Your task to perform on an android device: open a bookmark in the chrome app Image 0: 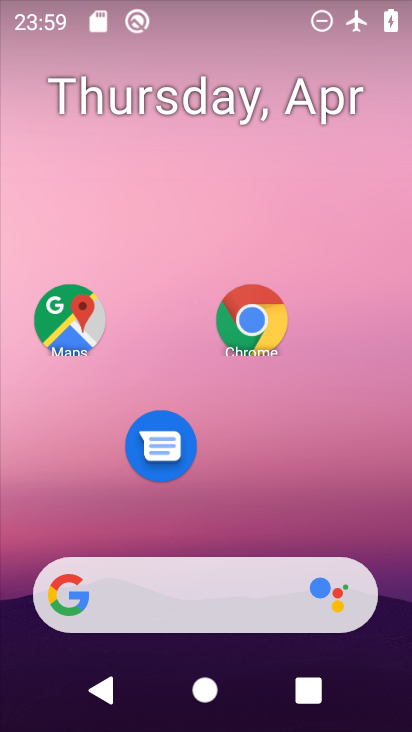
Step 0: drag from (213, 487) to (204, 199)
Your task to perform on an android device: open a bookmark in the chrome app Image 1: 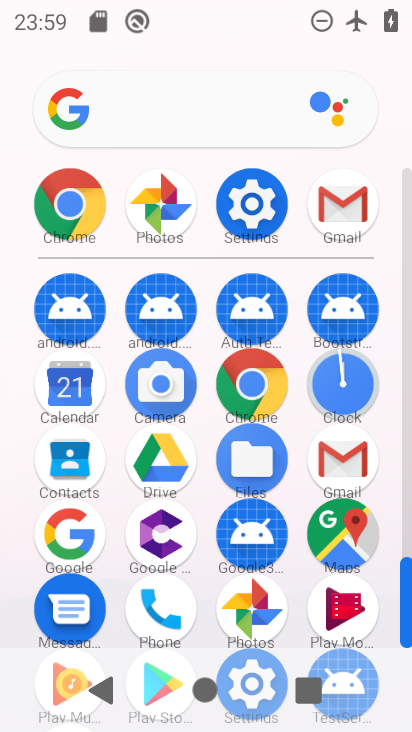
Step 1: click (254, 381)
Your task to perform on an android device: open a bookmark in the chrome app Image 2: 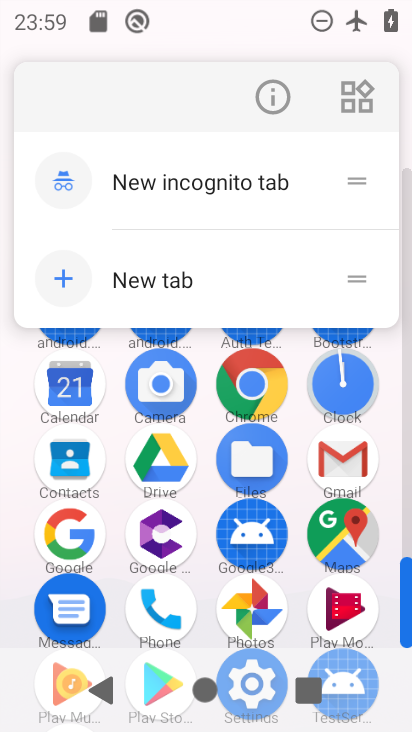
Step 2: click (275, 103)
Your task to perform on an android device: open a bookmark in the chrome app Image 3: 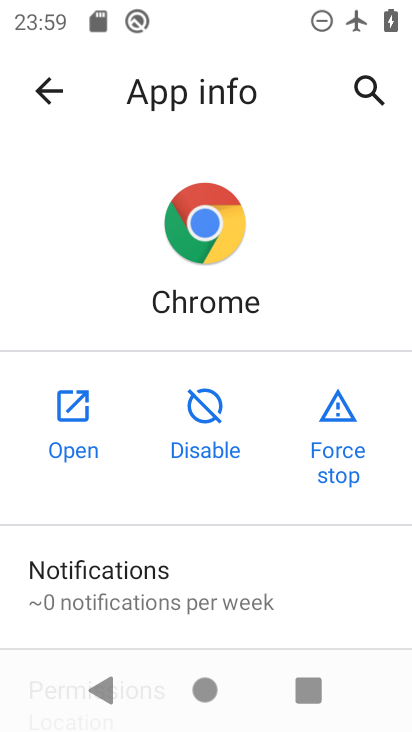
Step 3: click (79, 428)
Your task to perform on an android device: open a bookmark in the chrome app Image 4: 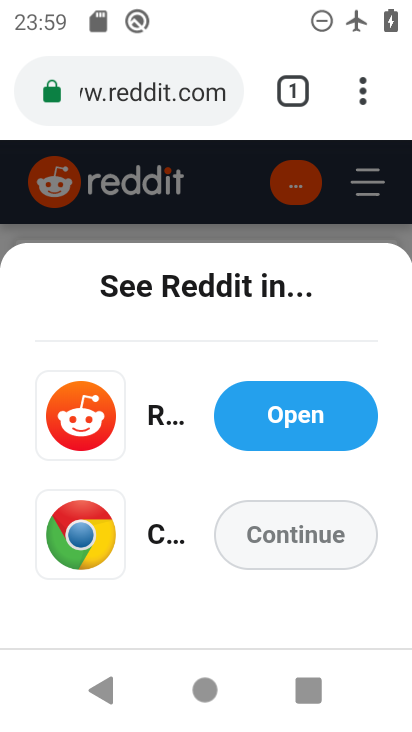
Step 4: drag from (359, 103) to (158, 275)
Your task to perform on an android device: open a bookmark in the chrome app Image 5: 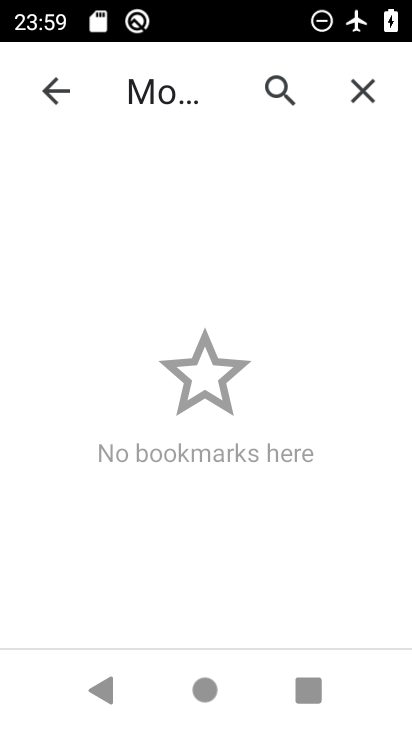
Step 5: drag from (213, 558) to (232, 295)
Your task to perform on an android device: open a bookmark in the chrome app Image 6: 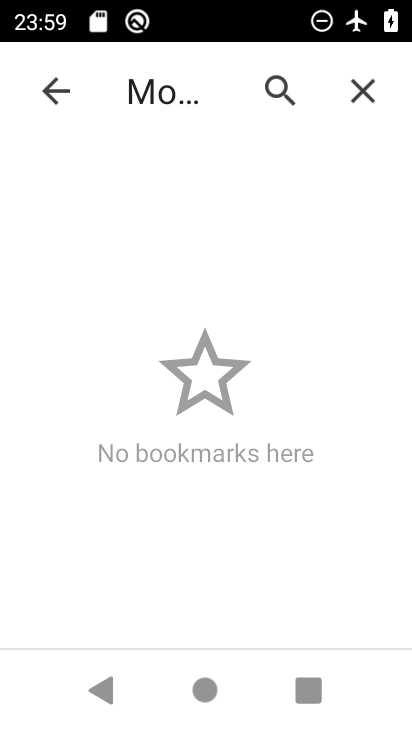
Step 6: drag from (207, 207) to (206, 372)
Your task to perform on an android device: open a bookmark in the chrome app Image 7: 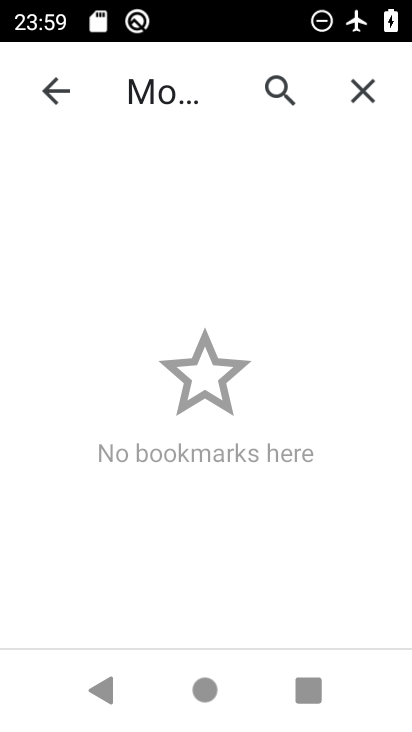
Step 7: drag from (146, 560) to (169, 490)
Your task to perform on an android device: open a bookmark in the chrome app Image 8: 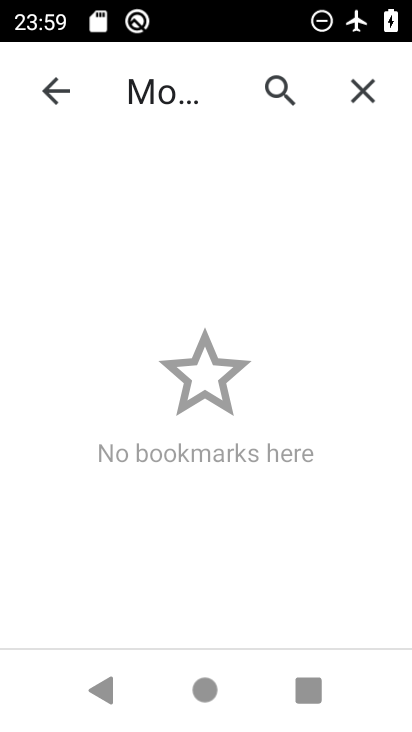
Step 8: drag from (190, 466) to (190, 285)
Your task to perform on an android device: open a bookmark in the chrome app Image 9: 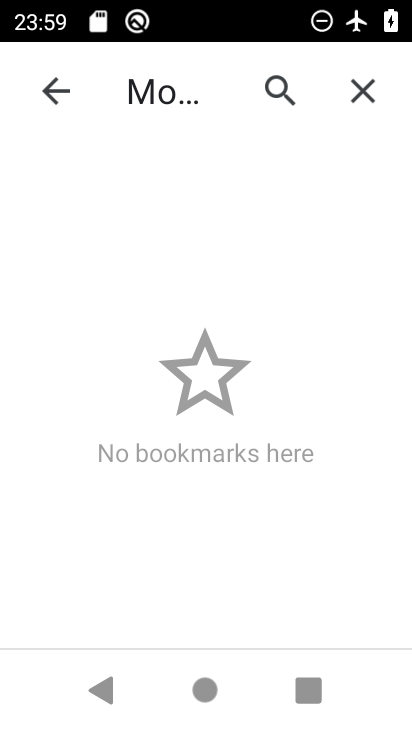
Step 9: click (187, 235)
Your task to perform on an android device: open a bookmark in the chrome app Image 10: 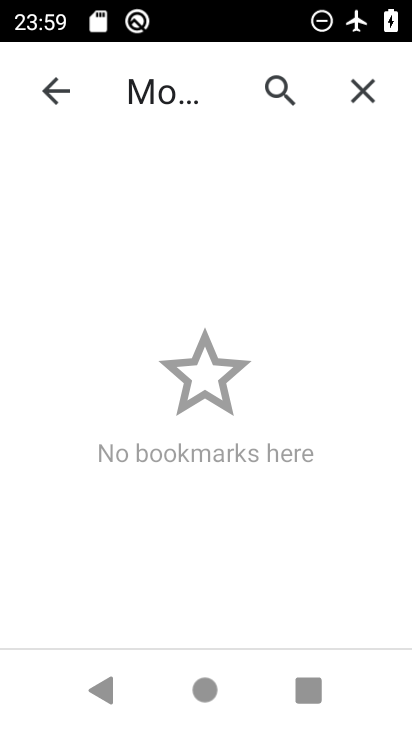
Step 10: click (181, 230)
Your task to perform on an android device: open a bookmark in the chrome app Image 11: 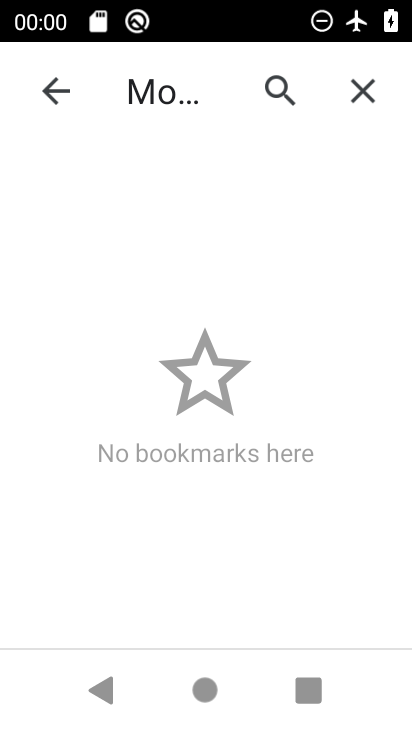
Step 11: click (211, 486)
Your task to perform on an android device: open a bookmark in the chrome app Image 12: 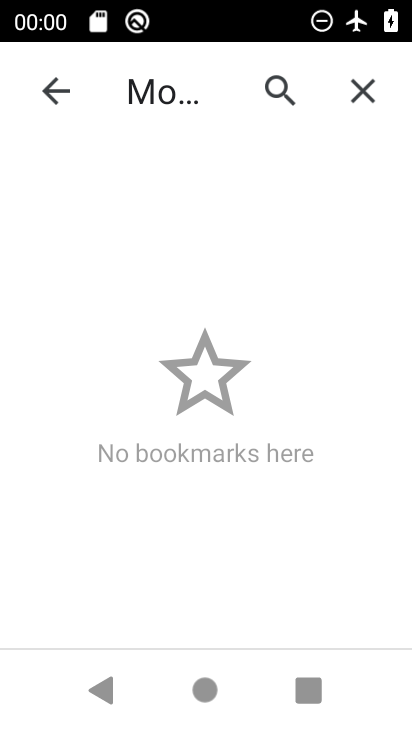
Step 12: click (202, 305)
Your task to perform on an android device: open a bookmark in the chrome app Image 13: 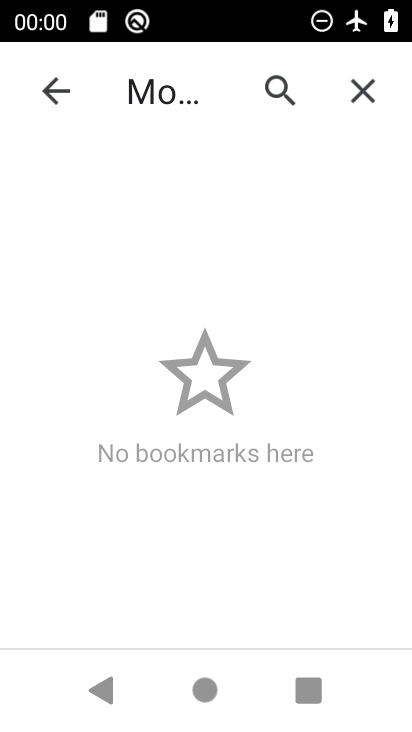
Step 13: click (206, 316)
Your task to perform on an android device: open a bookmark in the chrome app Image 14: 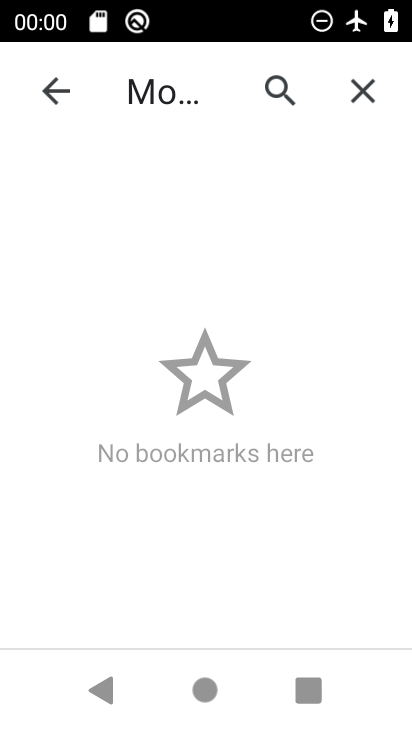
Step 14: click (208, 316)
Your task to perform on an android device: open a bookmark in the chrome app Image 15: 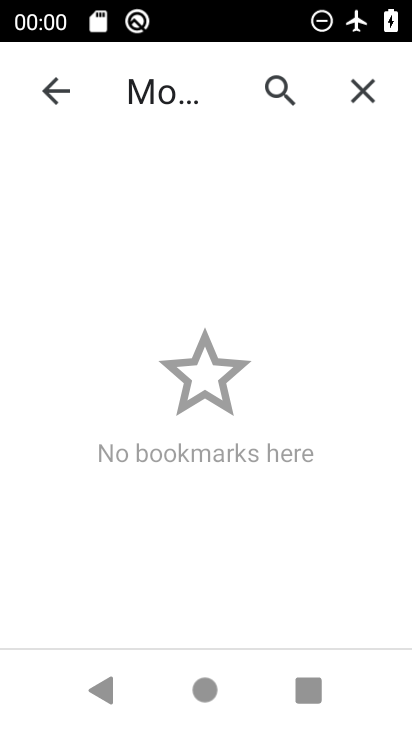
Step 15: click (220, 449)
Your task to perform on an android device: open a bookmark in the chrome app Image 16: 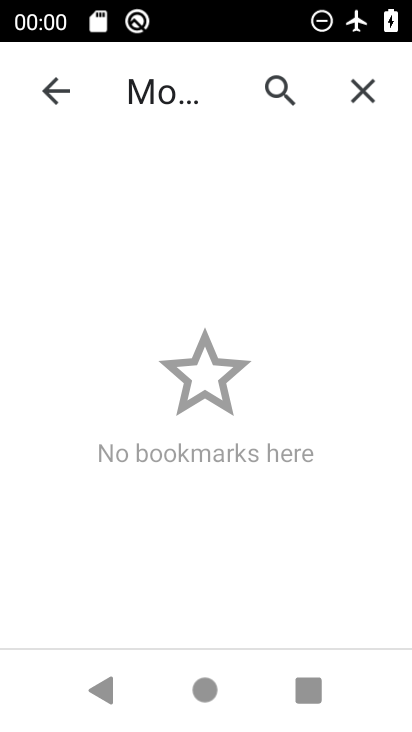
Step 16: click (272, 405)
Your task to perform on an android device: open a bookmark in the chrome app Image 17: 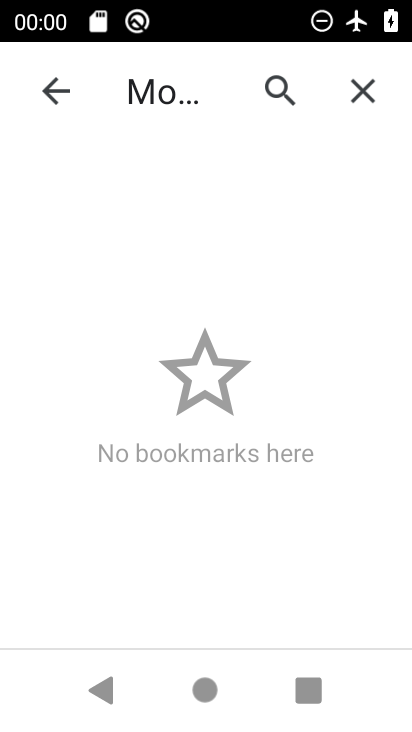
Step 17: click (172, 481)
Your task to perform on an android device: open a bookmark in the chrome app Image 18: 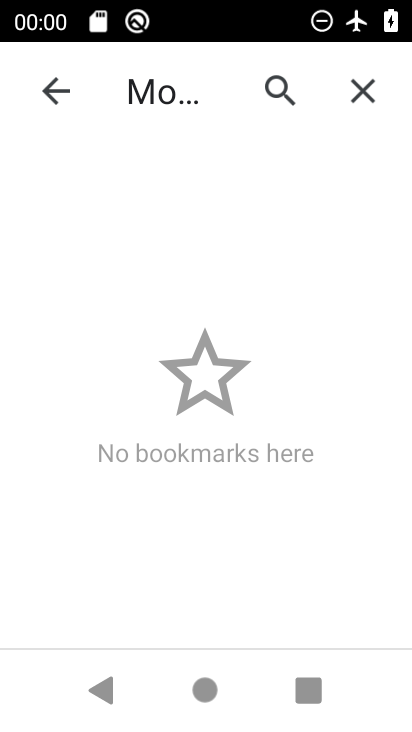
Step 18: click (180, 417)
Your task to perform on an android device: open a bookmark in the chrome app Image 19: 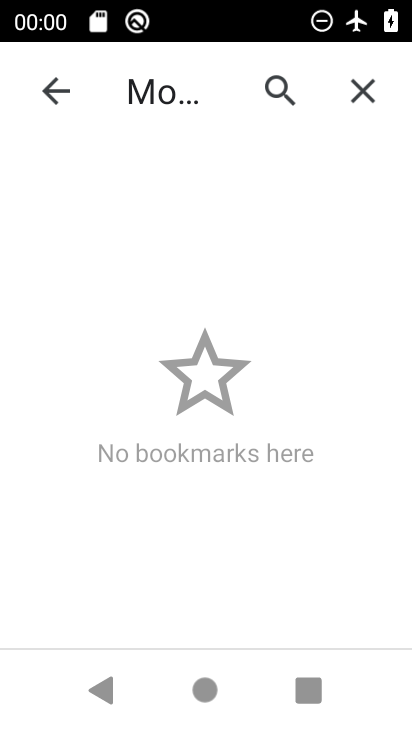
Step 19: click (176, 415)
Your task to perform on an android device: open a bookmark in the chrome app Image 20: 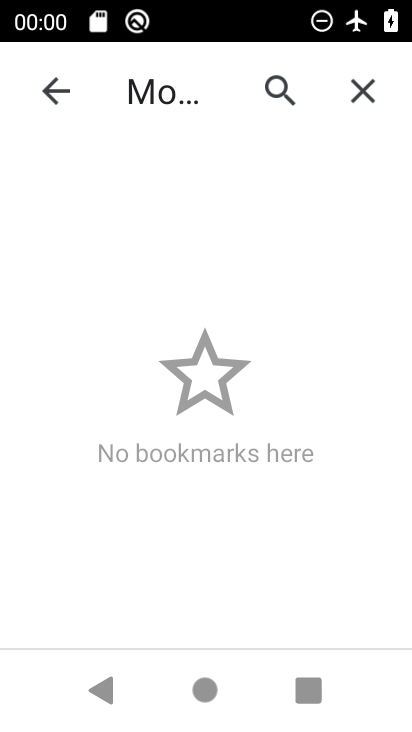
Step 20: click (179, 417)
Your task to perform on an android device: open a bookmark in the chrome app Image 21: 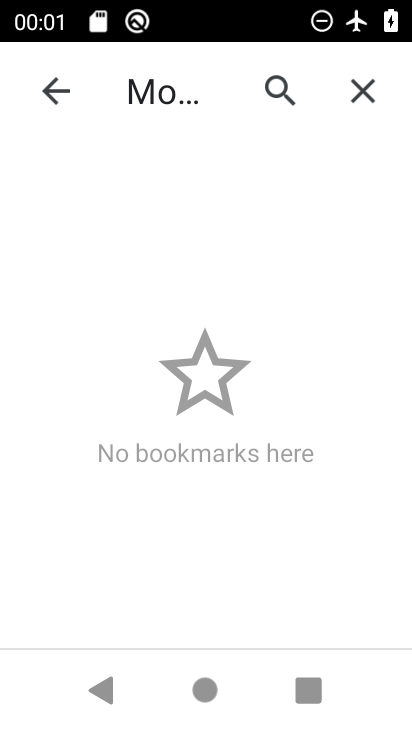
Step 21: task complete